Your task to perform on an android device: open app "PUBG MOBILE" (install if not already installed), go to login, and select forgot password Image 0: 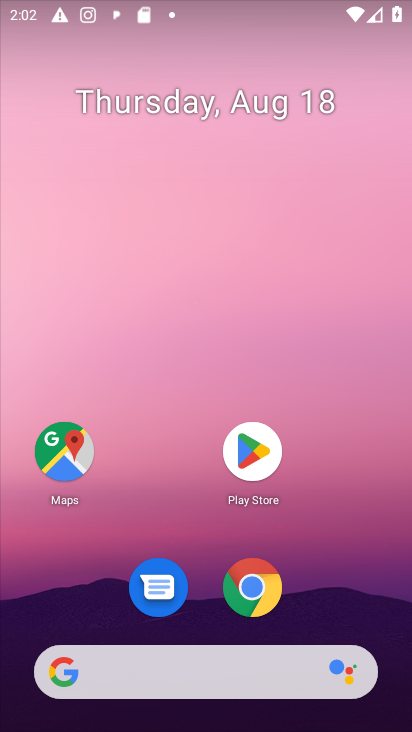
Step 0: click (243, 451)
Your task to perform on an android device: open app "PUBG MOBILE" (install if not already installed), go to login, and select forgot password Image 1: 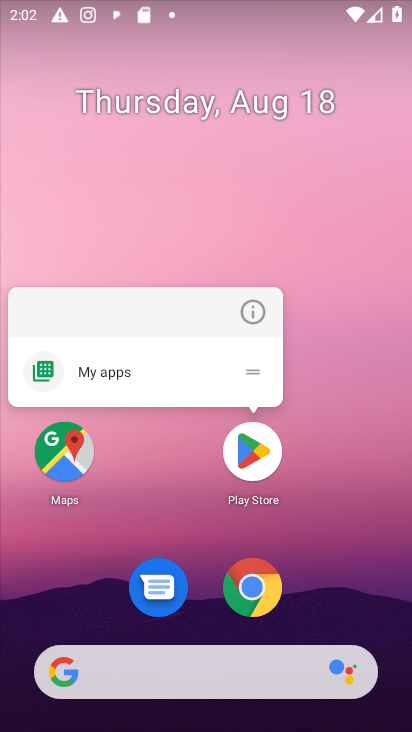
Step 1: click (250, 451)
Your task to perform on an android device: open app "PUBG MOBILE" (install if not already installed), go to login, and select forgot password Image 2: 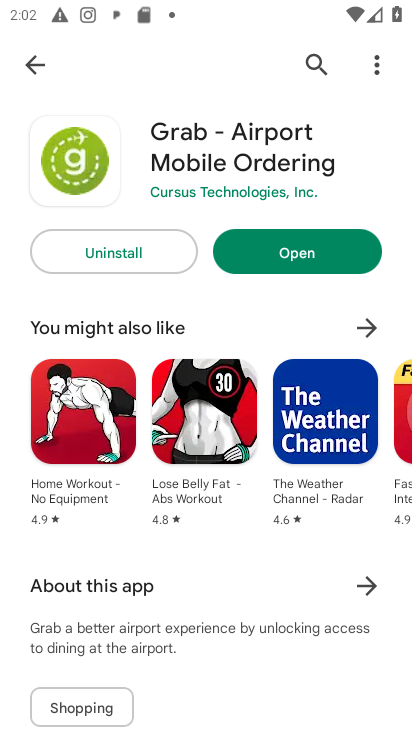
Step 2: click (315, 59)
Your task to perform on an android device: open app "PUBG MOBILE" (install if not already installed), go to login, and select forgot password Image 3: 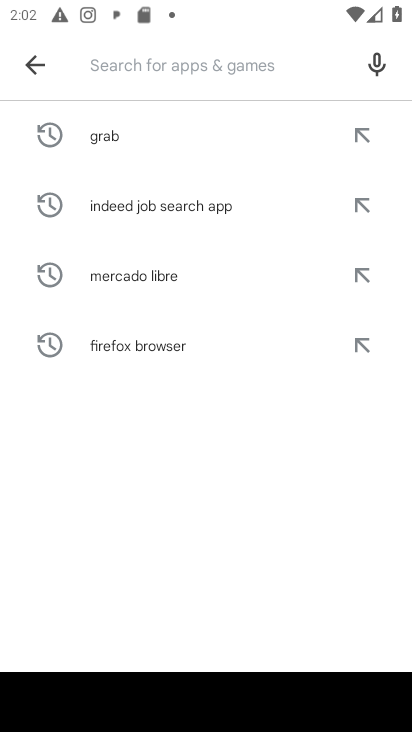
Step 3: type "PUBG MOBILE"
Your task to perform on an android device: open app "PUBG MOBILE" (install if not already installed), go to login, and select forgot password Image 4: 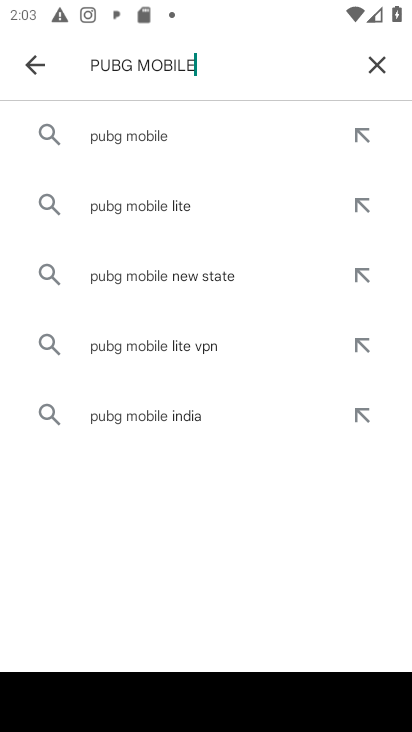
Step 4: click (116, 131)
Your task to perform on an android device: open app "PUBG MOBILE" (install if not already installed), go to login, and select forgot password Image 5: 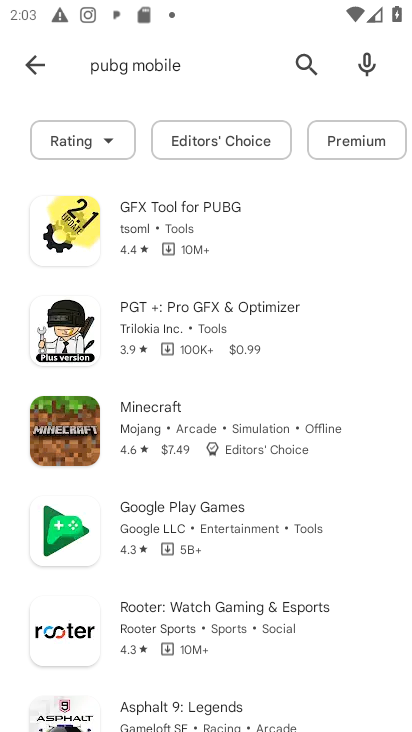
Step 5: task complete